Your task to perform on an android device: all mails in gmail Image 0: 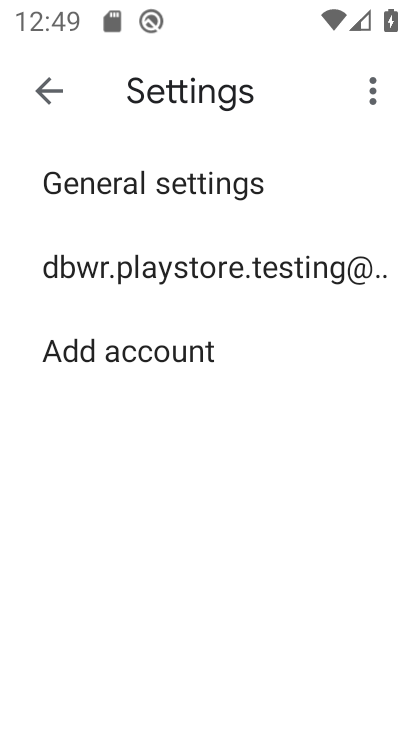
Step 0: press home button
Your task to perform on an android device: all mails in gmail Image 1: 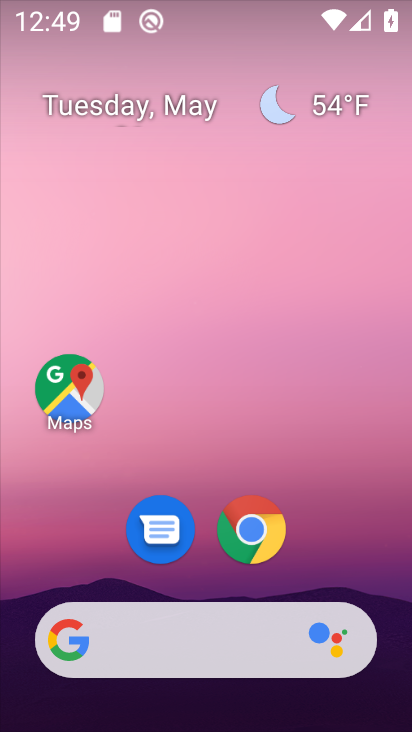
Step 1: drag from (356, 569) to (325, 270)
Your task to perform on an android device: all mails in gmail Image 2: 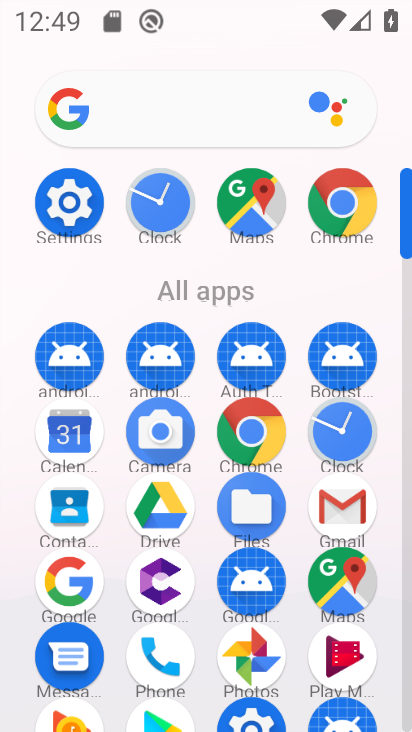
Step 2: click (337, 502)
Your task to perform on an android device: all mails in gmail Image 3: 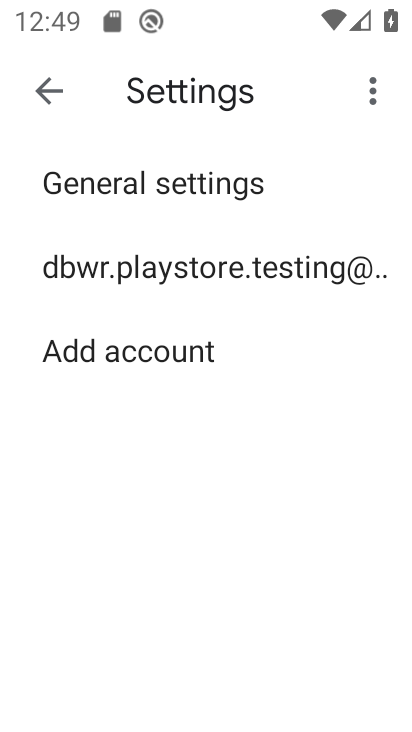
Step 3: click (163, 268)
Your task to perform on an android device: all mails in gmail Image 4: 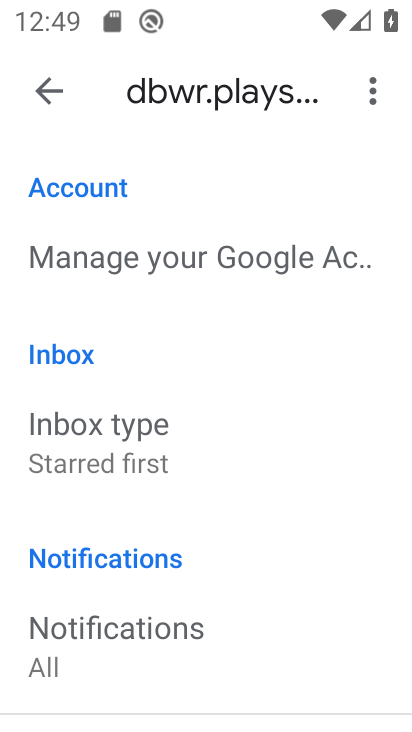
Step 4: click (39, 96)
Your task to perform on an android device: all mails in gmail Image 5: 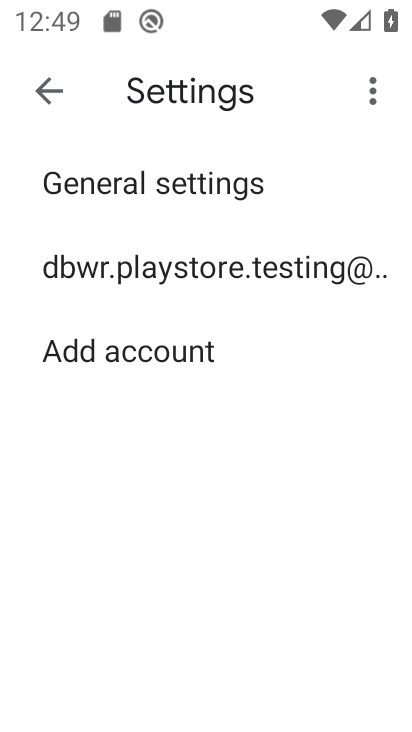
Step 5: click (39, 96)
Your task to perform on an android device: all mails in gmail Image 6: 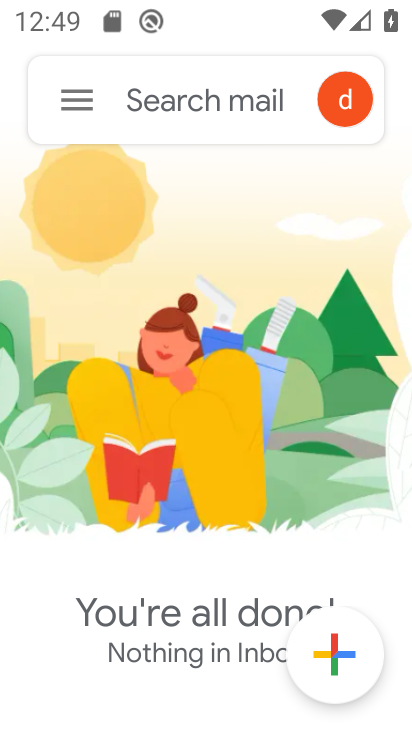
Step 6: click (80, 92)
Your task to perform on an android device: all mails in gmail Image 7: 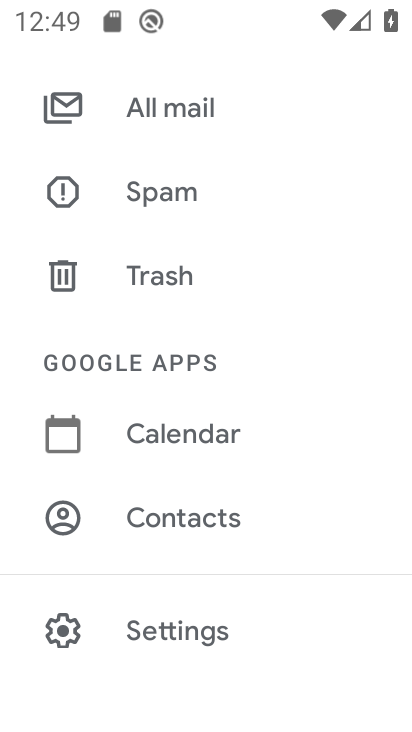
Step 7: click (186, 621)
Your task to perform on an android device: all mails in gmail Image 8: 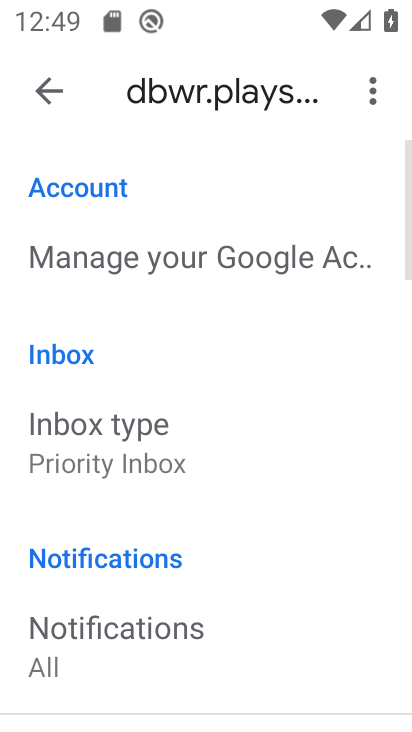
Step 8: drag from (226, 582) to (265, 259)
Your task to perform on an android device: all mails in gmail Image 9: 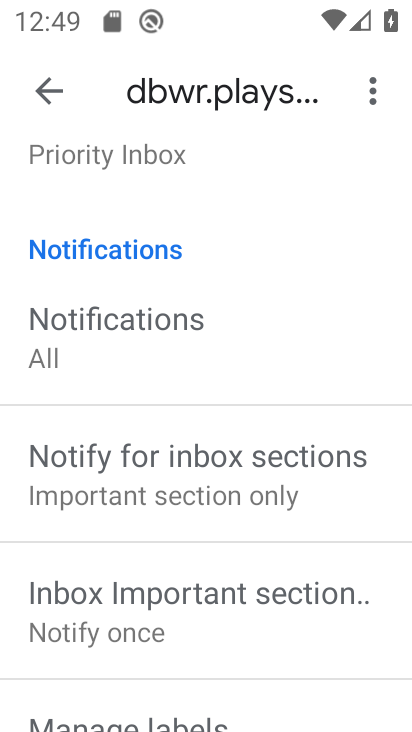
Step 9: drag from (192, 540) to (215, 340)
Your task to perform on an android device: all mails in gmail Image 10: 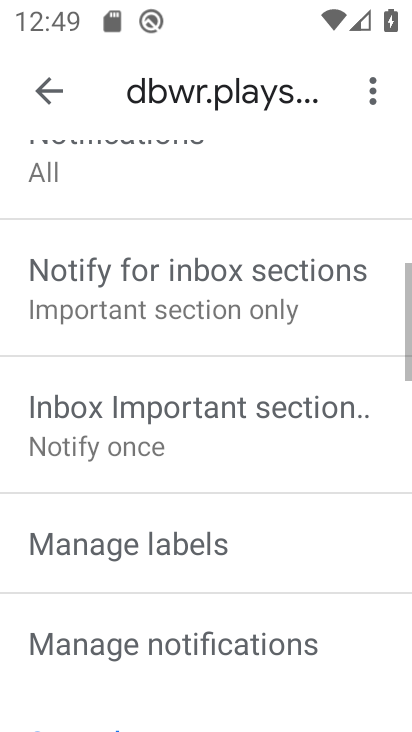
Step 10: click (48, 88)
Your task to perform on an android device: all mails in gmail Image 11: 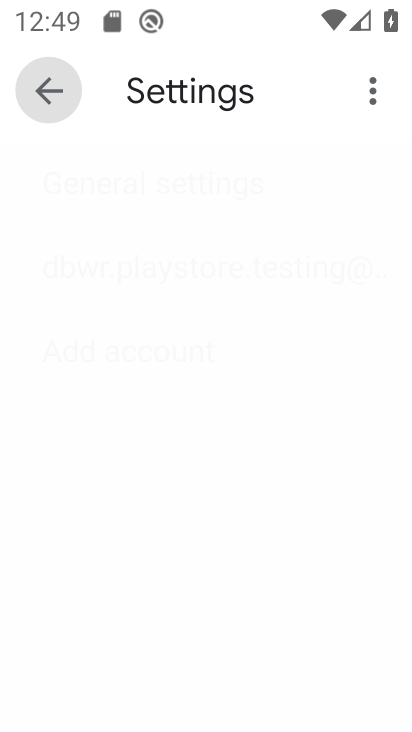
Step 11: click (48, 88)
Your task to perform on an android device: all mails in gmail Image 12: 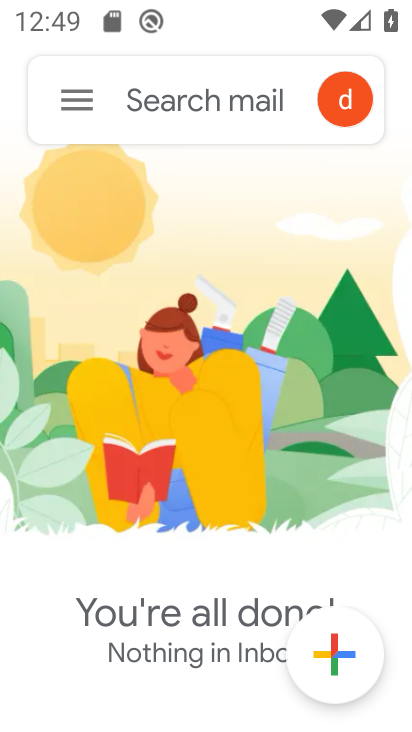
Step 12: click (78, 93)
Your task to perform on an android device: all mails in gmail Image 13: 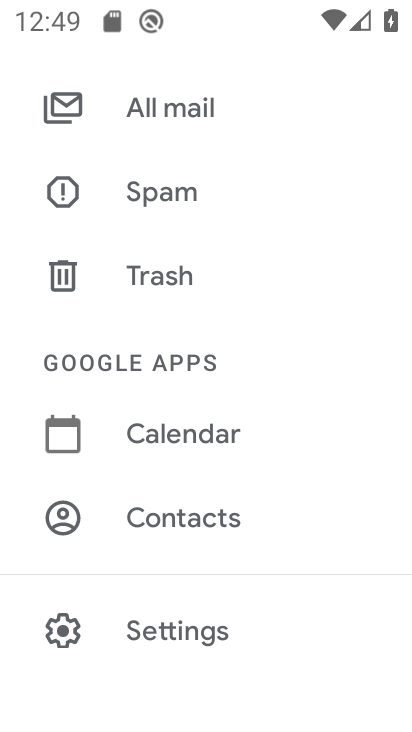
Step 13: drag from (241, 162) to (216, 558)
Your task to perform on an android device: all mails in gmail Image 14: 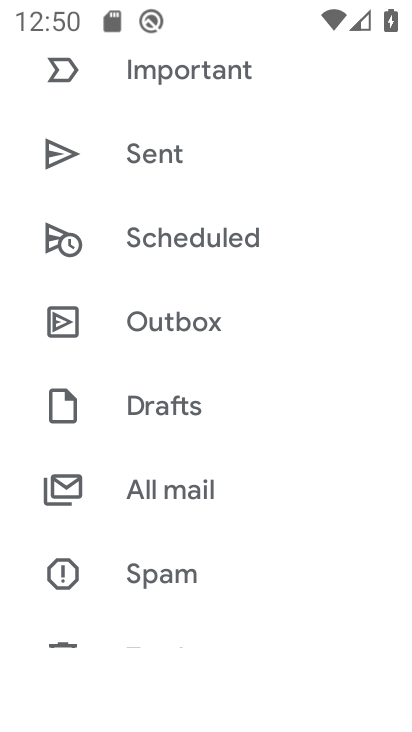
Step 14: drag from (219, 154) to (222, 442)
Your task to perform on an android device: all mails in gmail Image 15: 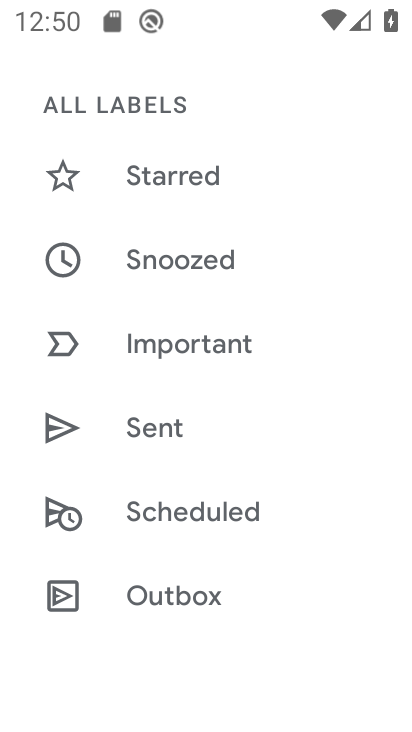
Step 15: drag from (203, 535) to (265, 199)
Your task to perform on an android device: all mails in gmail Image 16: 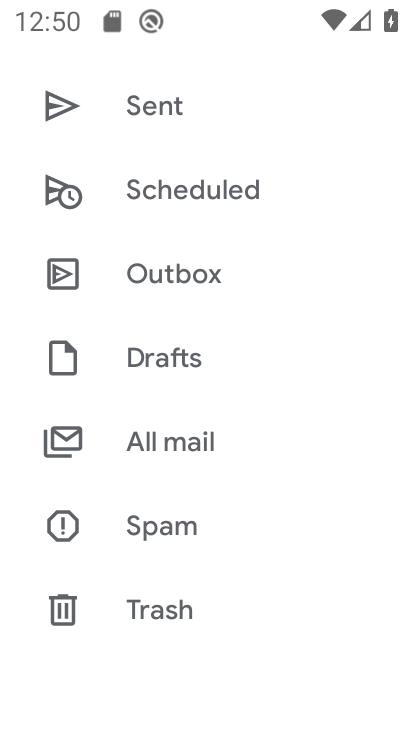
Step 16: click (184, 422)
Your task to perform on an android device: all mails in gmail Image 17: 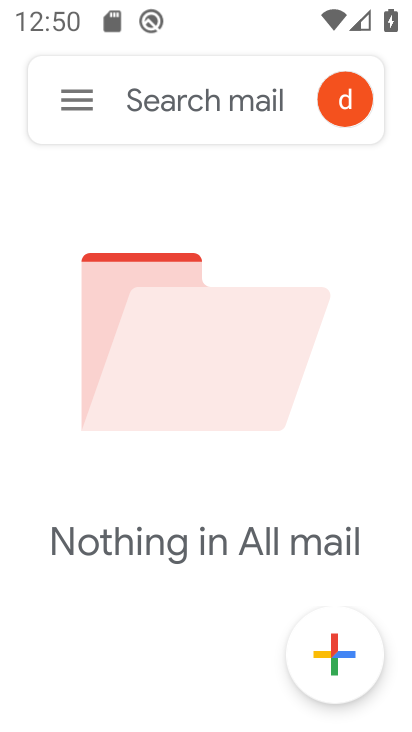
Step 17: task complete